Your task to perform on an android device: Open Reddit.com Image 0: 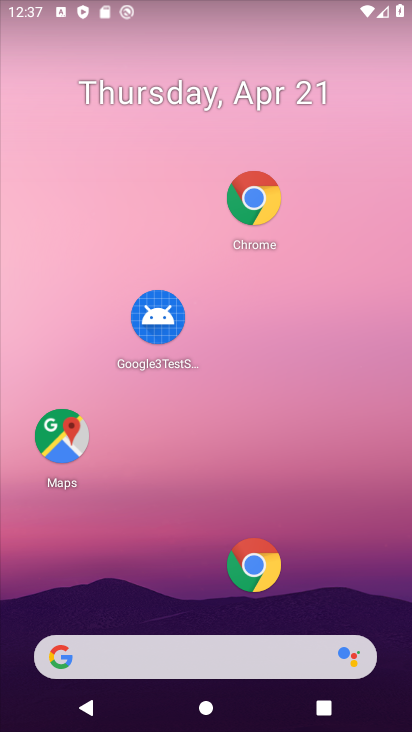
Step 0: click (251, 560)
Your task to perform on an android device: Open Reddit.com Image 1: 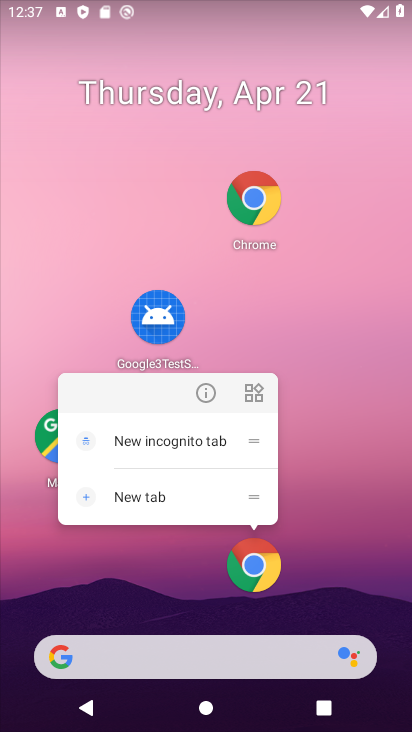
Step 1: click (201, 386)
Your task to perform on an android device: Open Reddit.com Image 2: 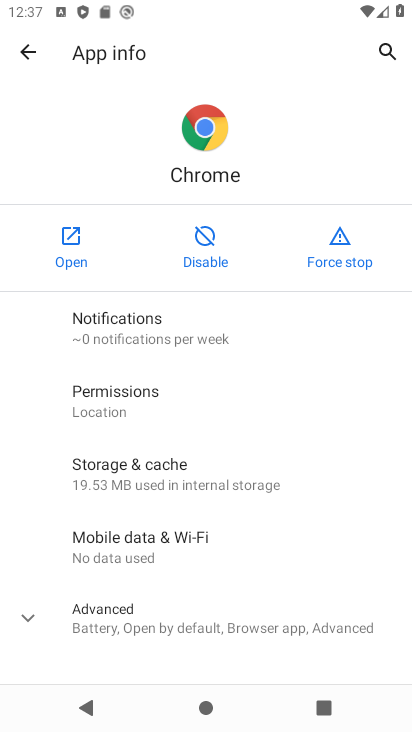
Step 2: click (74, 255)
Your task to perform on an android device: Open Reddit.com Image 3: 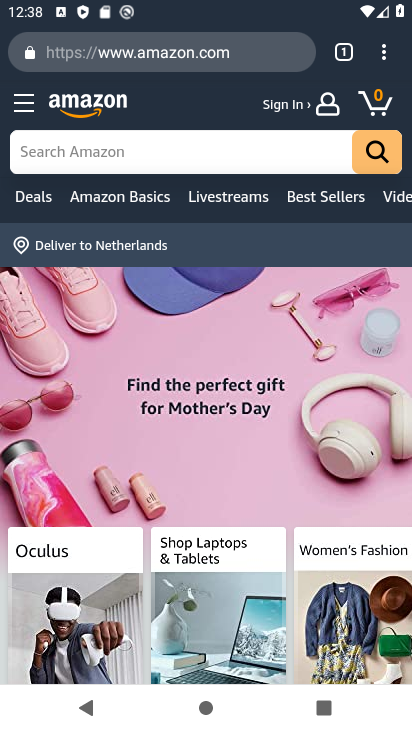
Step 3: click (349, 62)
Your task to perform on an android device: Open Reddit.com Image 4: 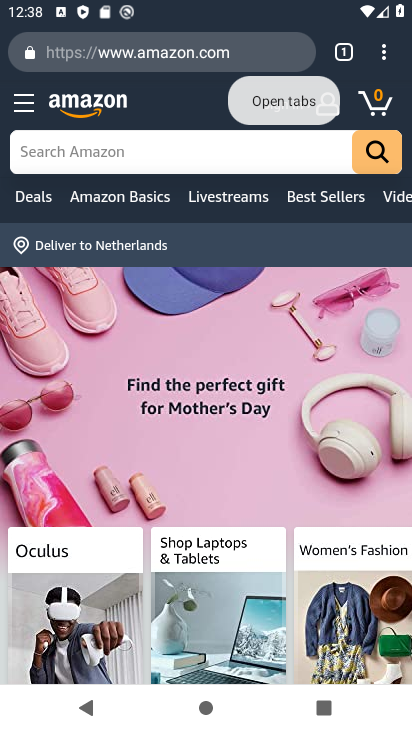
Step 4: click (352, 50)
Your task to perform on an android device: Open Reddit.com Image 5: 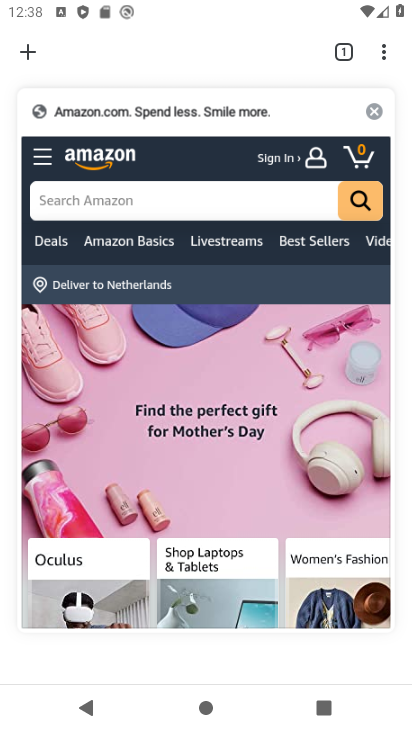
Step 5: click (30, 48)
Your task to perform on an android device: Open Reddit.com Image 6: 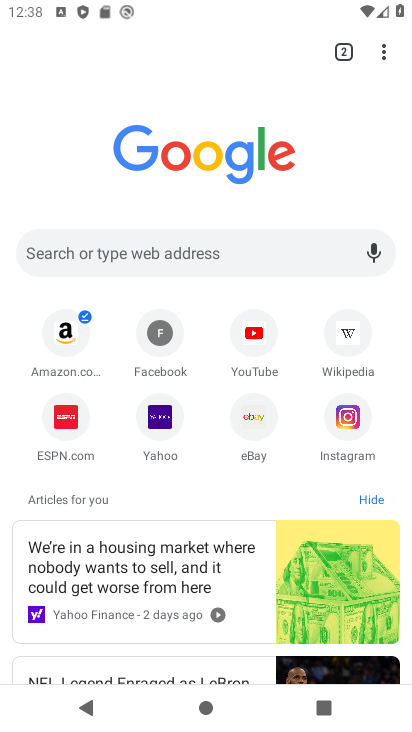
Step 6: click (118, 259)
Your task to perform on an android device: Open Reddit.com Image 7: 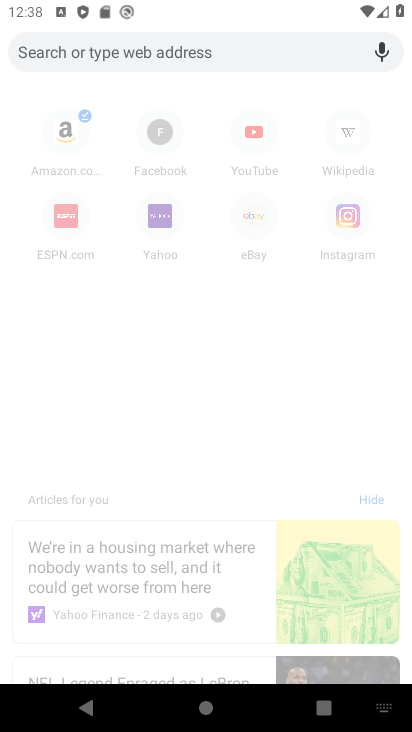
Step 7: type "Reddit.com"
Your task to perform on an android device: Open Reddit.com Image 8: 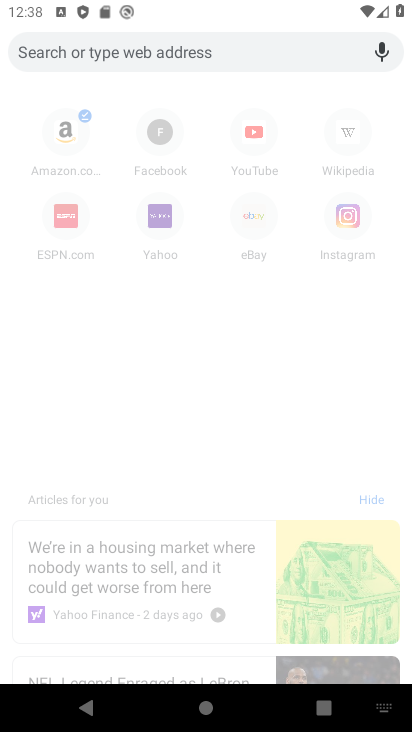
Step 8: click (130, 55)
Your task to perform on an android device: Open Reddit.com Image 9: 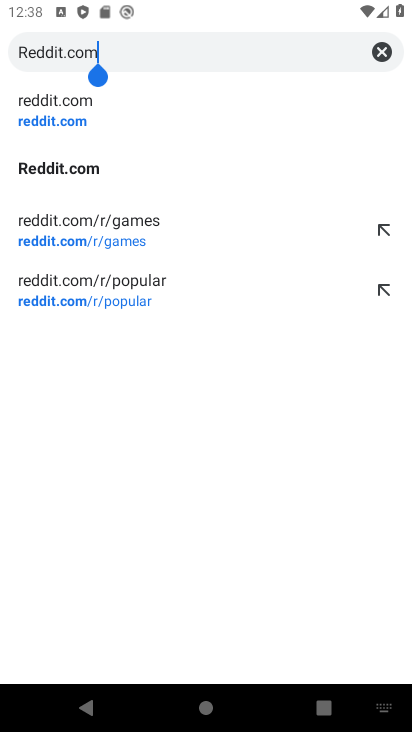
Step 9: click (156, 116)
Your task to perform on an android device: Open Reddit.com Image 10: 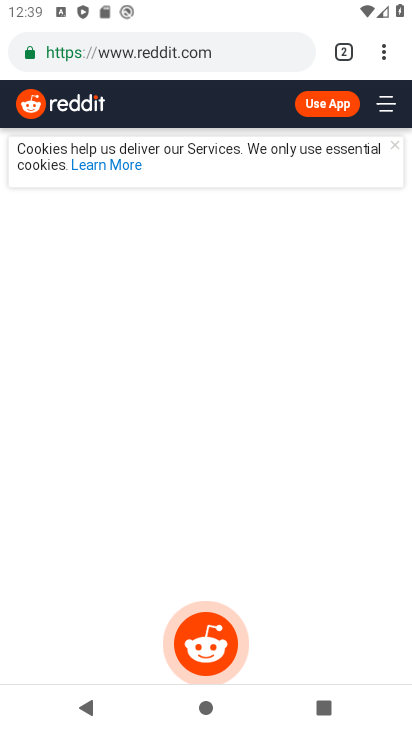
Step 10: task complete